Your task to perform on an android device: open app "Calculator" Image 0: 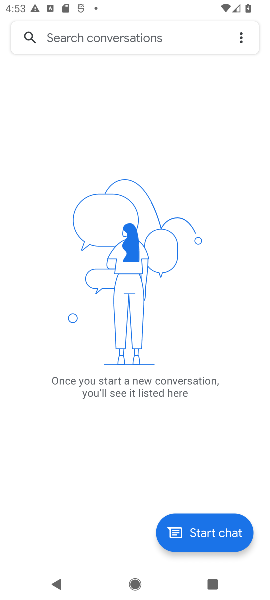
Step 0: press home button
Your task to perform on an android device: open app "Calculator" Image 1: 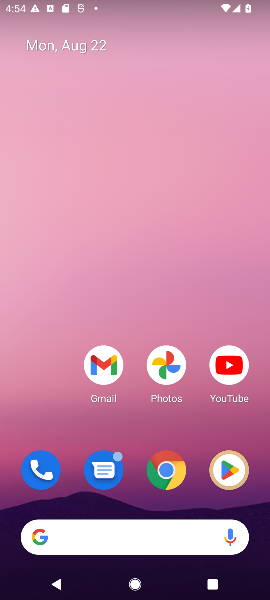
Step 1: drag from (161, 483) to (166, 147)
Your task to perform on an android device: open app "Calculator" Image 2: 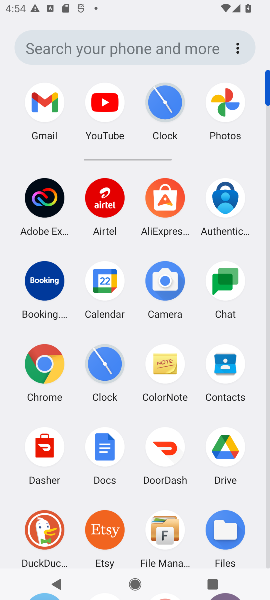
Step 2: drag from (150, 497) to (171, 150)
Your task to perform on an android device: open app "Calculator" Image 3: 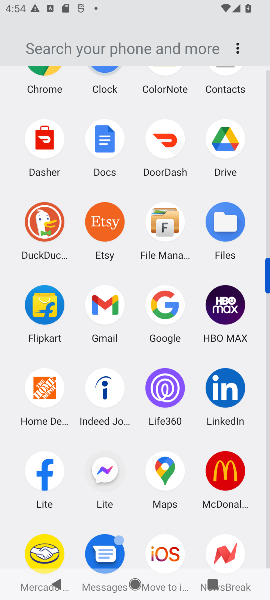
Step 3: drag from (114, 499) to (150, 163)
Your task to perform on an android device: open app "Calculator" Image 4: 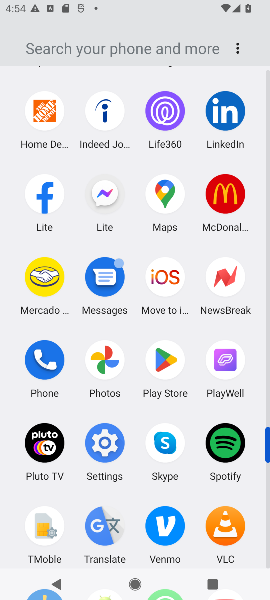
Step 4: drag from (80, 492) to (123, 160)
Your task to perform on an android device: open app "Calculator" Image 5: 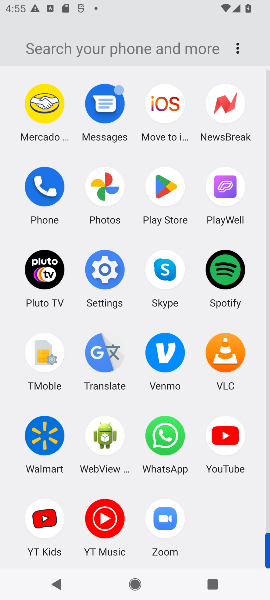
Step 5: click (158, 179)
Your task to perform on an android device: open app "Calculator" Image 6: 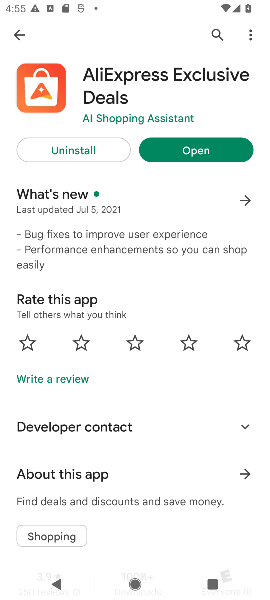
Step 6: click (20, 34)
Your task to perform on an android device: open app "Calculator" Image 7: 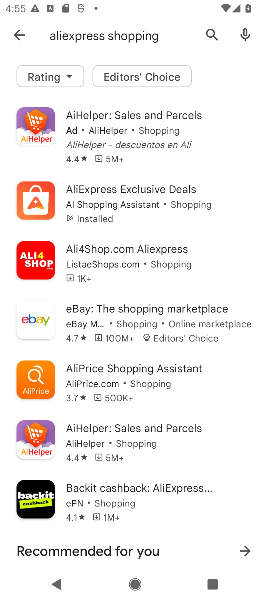
Step 7: click (24, 20)
Your task to perform on an android device: open app "Calculator" Image 8: 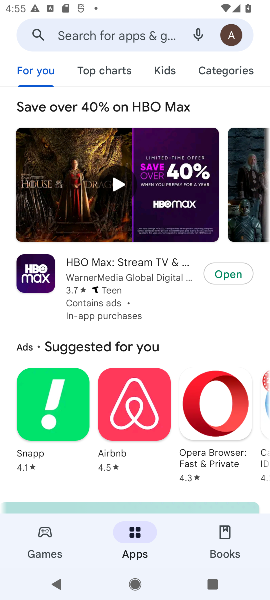
Step 8: click (72, 27)
Your task to perform on an android device: open app "Calculator" Image 9: 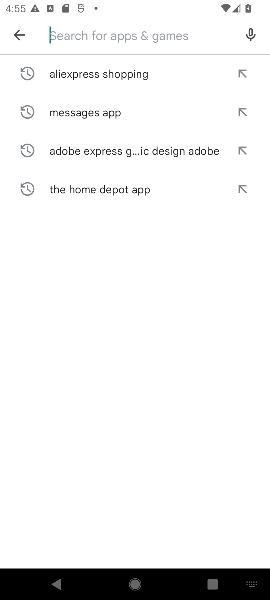
Step 9: type "Calculator "
Your task to perform on an android device: open app "Calculator" Image 10: 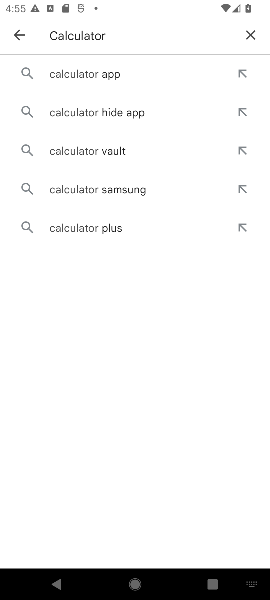
Step 10: click (105, 66)
Your task to perform on an android device: open app "Calculator" Image 11: 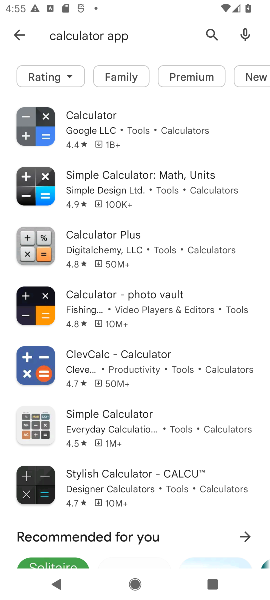
Step 11: click (142, 117)
Your task to perform on an android device: open app "Calculator" Image 12: 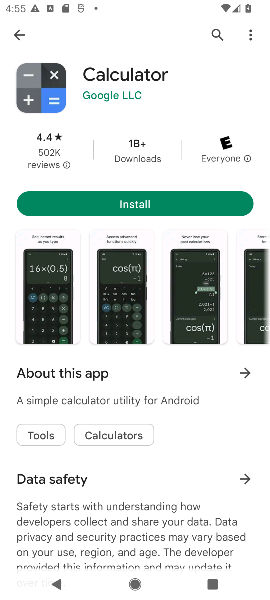
Step 12: click (178, 191)
Your task to perform on an android device: open app "Calculator" Image 13: 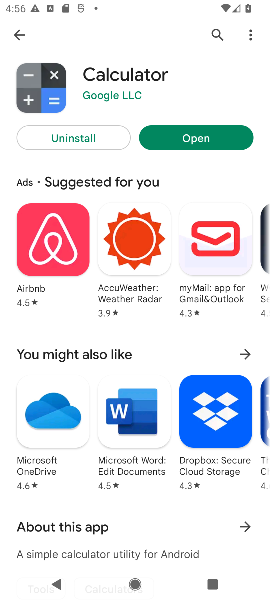
Step 13: click (218, 138)
Your task to perform on an android device: open app "Calculator" Image 14: 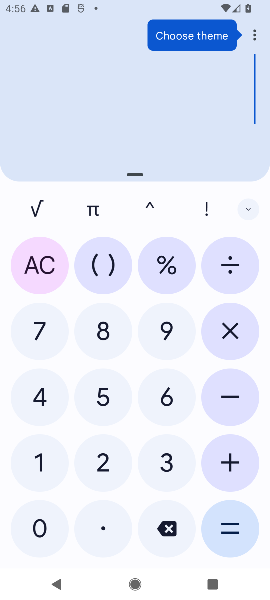
Step 14: task complete